Your task to perform on an android device: What's the weather today? Image 0: 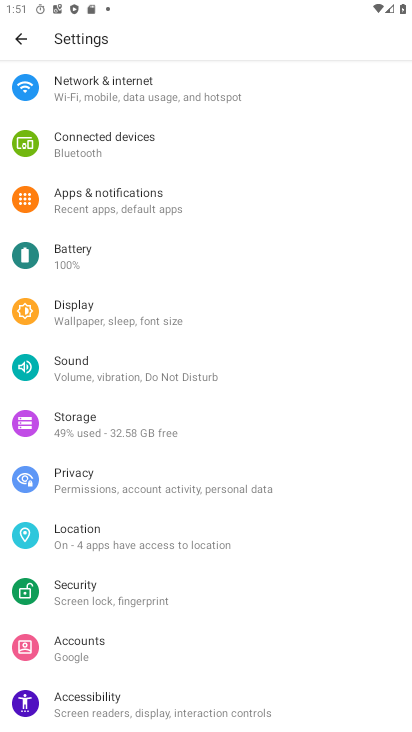
Step 0: press home button
Your task to perform on an android device: What's the weather today? Image 1: 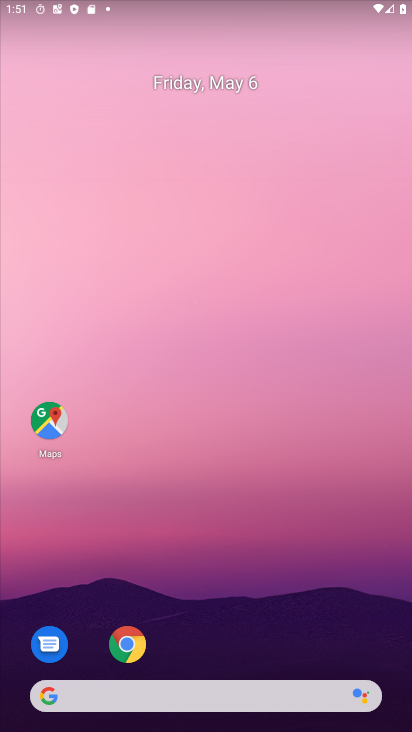
Step 1: click (169, 705)
Your task to perform on an android device: What's the weather today? Image 2: 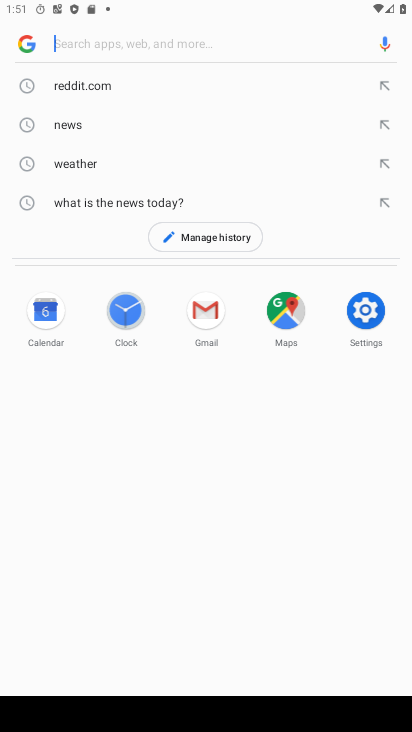
Step 2: type "What's the weather today?"
Your task to perform on an android device: What's the weather today? Image 3: 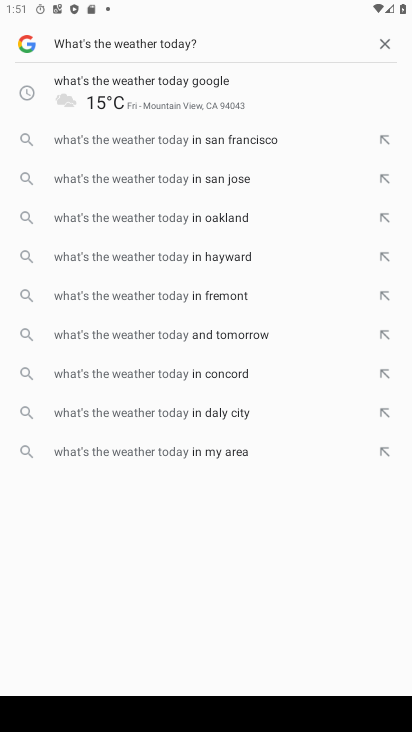
Step 3: click (260, 94)
Your task to perform on an android device: What's the weather today? Image 4: 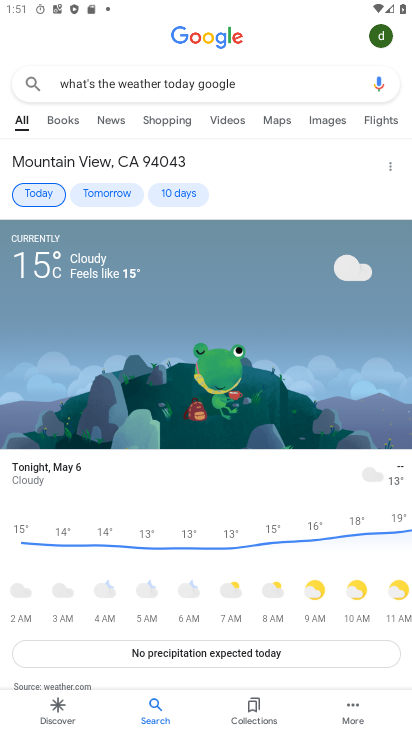
Step 4: task complete